Your task to perform on an android device: turn on the 24-hour format for clock Image 0: 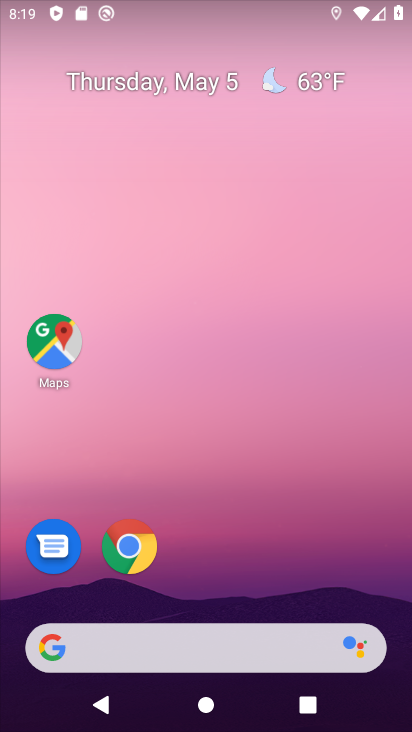
Step 0: drag from (297, 596) to (144, 53)
Your task to perform on an android device: turn on the 24-hour format for clock Image 1: 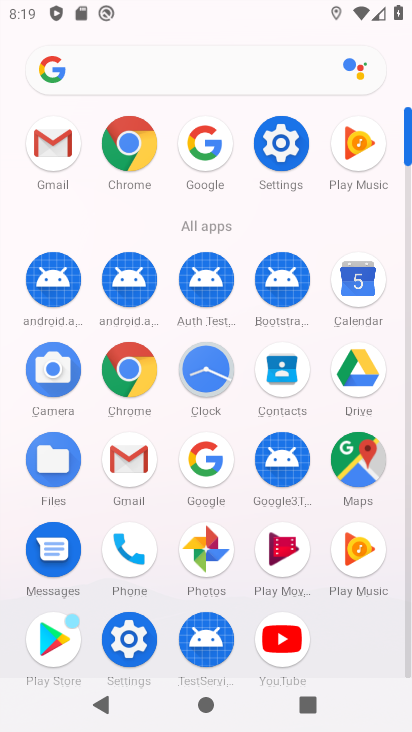
Step 1: click (198, 370)
Your task to perform on an android device: turn on the 24-hour format for clock Image 2: 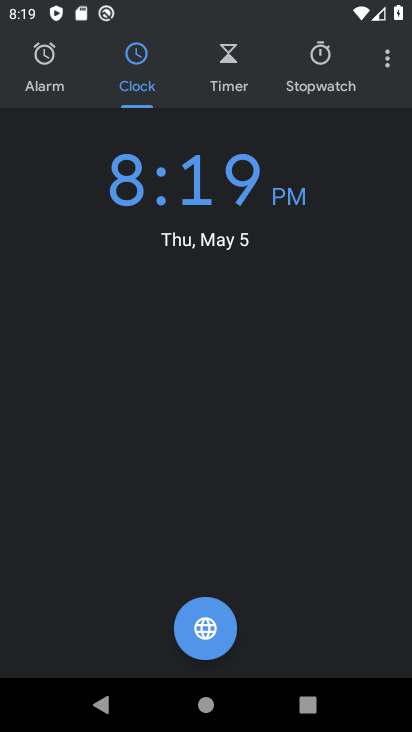
Step 2: click (388, 56)
Your task to perform on an android device: turn on the 24-hour format for clock Image 3: 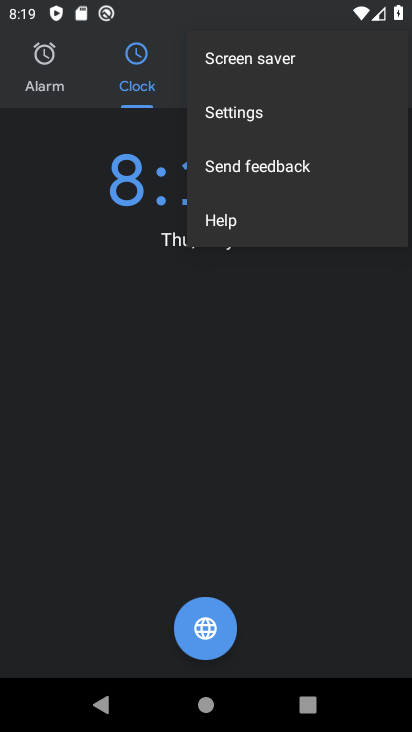
Step 3: click (256, 112)
Your task to perform on an android device: turn on the 24-hour format for clock Image 4: 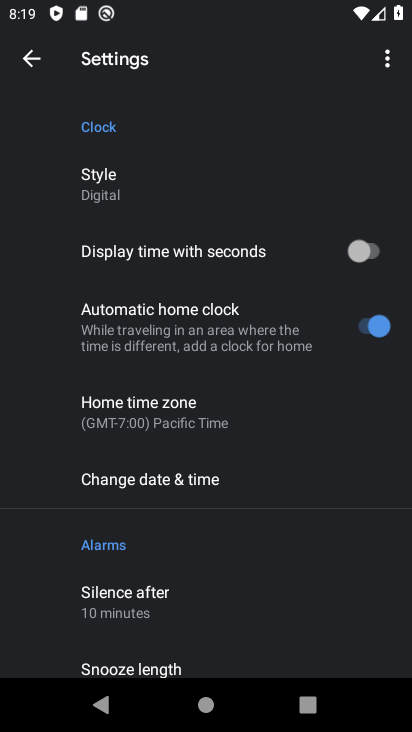
Step 4: drag from (157, 589) to (111, 204)
Your task to perform on an android device: turn on the 24-hour format for clock Image 5: 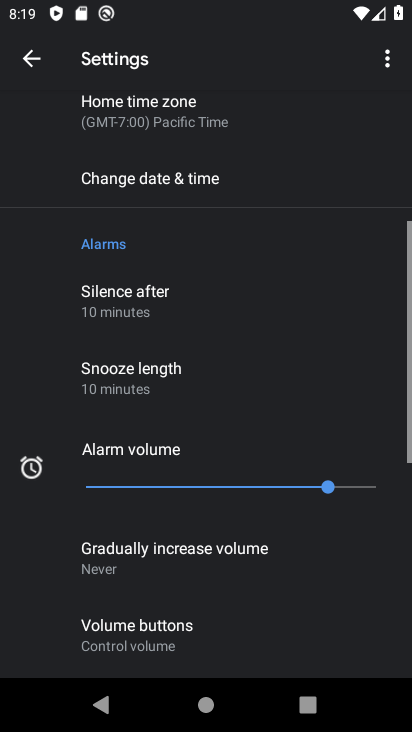
Step 5: drag from (171, 462) to (164, 161)
Your task to perform on an android device: turn on the 24-hour format for clock Image 6: 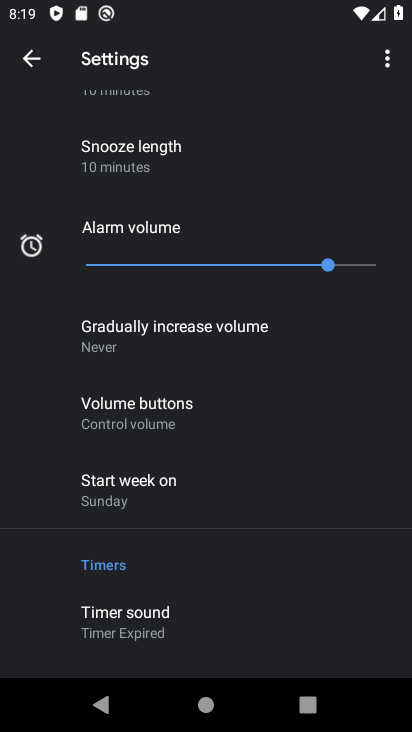
Step 6: drag from (196, 542) to (226, 83)
Your task to perform on an android device: turn on the 24-hour format for clock Image 7: 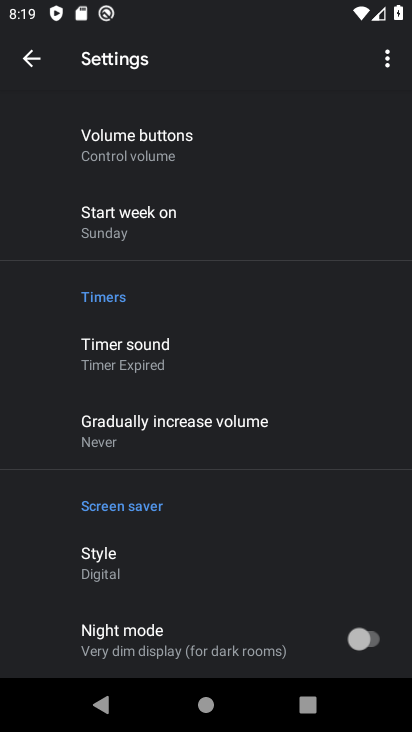
Step 7: click (127, 154)
Your task to perform on an android device: turn on the 24-hour format for clock Image 8: 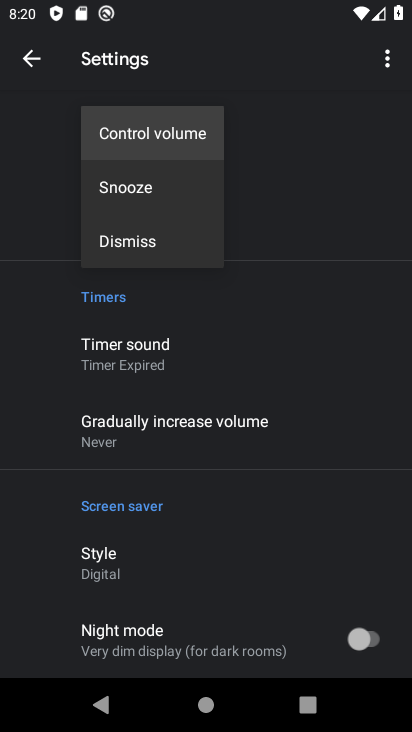
Step 8: click (260, 344)
Your task to perform on an android device: turn on the 24-hour format for clock Image 9: 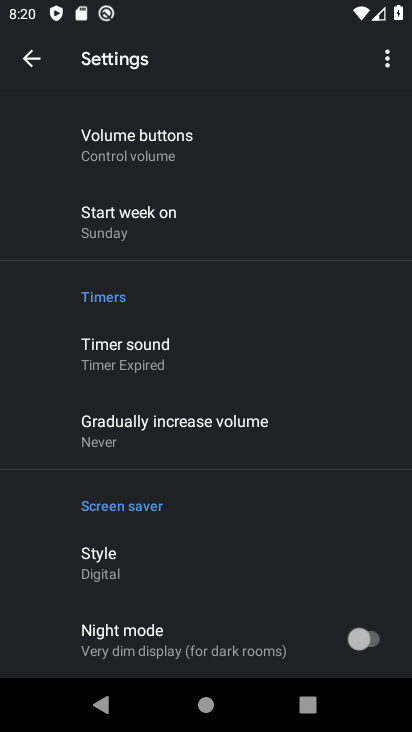
Step 9: drag from (166, 507) to (179, 160)
Your task to perform on an android device: turn on the 24-hour format for clock Image 10: 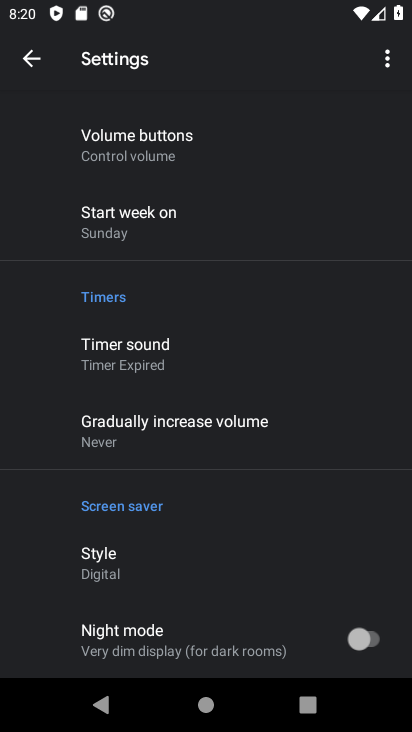
Step 10: drag from (186, 379) to (212, 580)
Your task to perform on an android device: turn on the 24-hour format for clock Image 11: 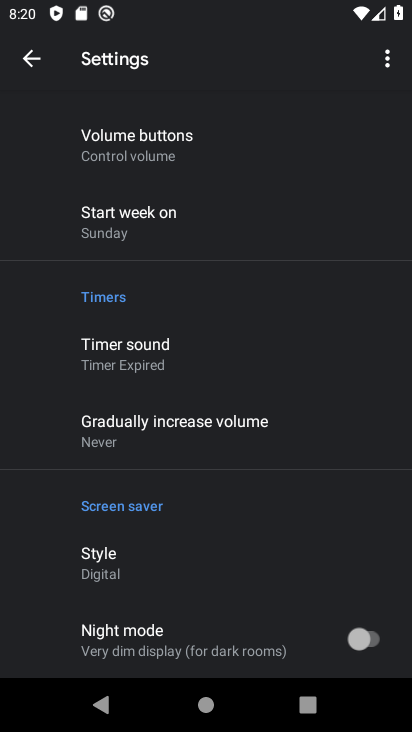
Step 11: drag from (182, 340) to (207, 572)
Your task to perform on an android device: turn on the 24-hour format for clock Image 12: 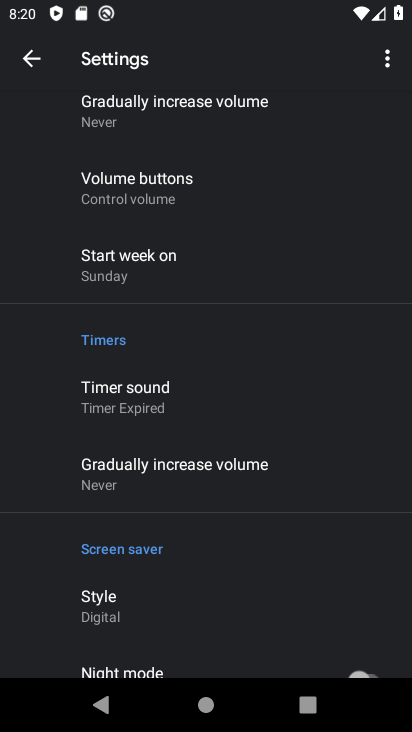
Step 12: drag from (153, 216) to (205, 613)
Your task to perform on an android device: turn on the 24-hour format for clock Image 13: 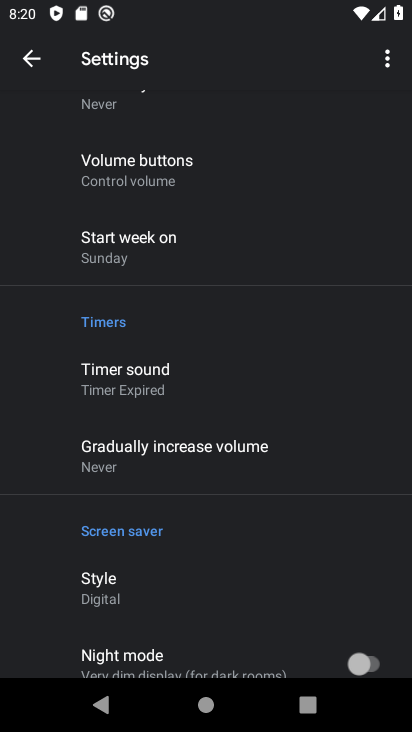
Step 13: click (30, 60)
Your task to perform on an android device: turn on the 24-hour format for clock Image 14: 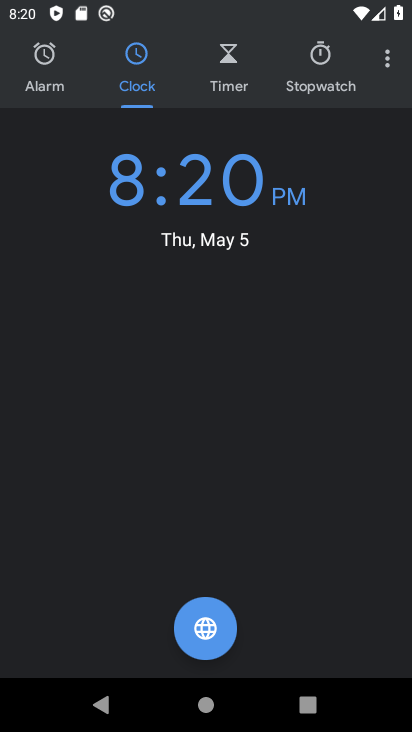
Step 14: click (384, 47)
Your task to perform on an android device: turn on the 24-hour format for clock Image 15: 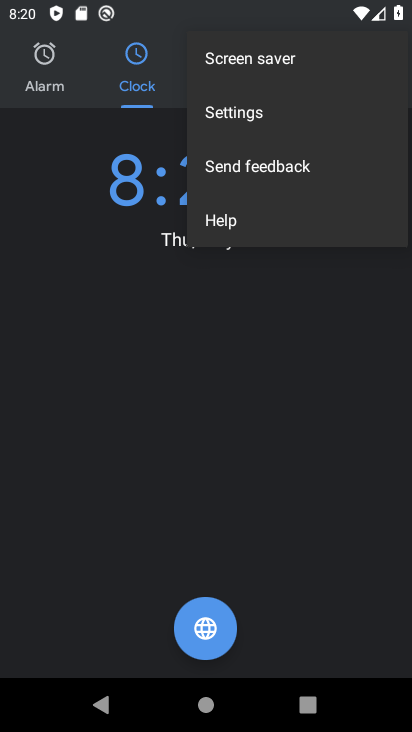
Step 15: click (249, 116)
Your task to perform on an android device: turn on the 24-hour format for clock Image 16: 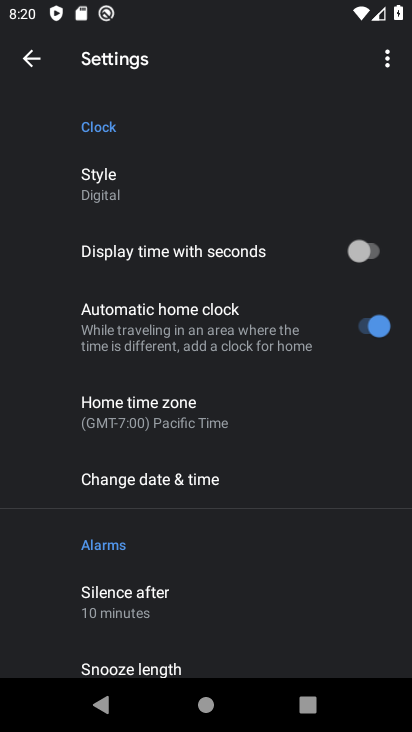
Step 16: click (123, 484)
Your task to perform on an android device: turn on the 24-hour format for clock Image 17: 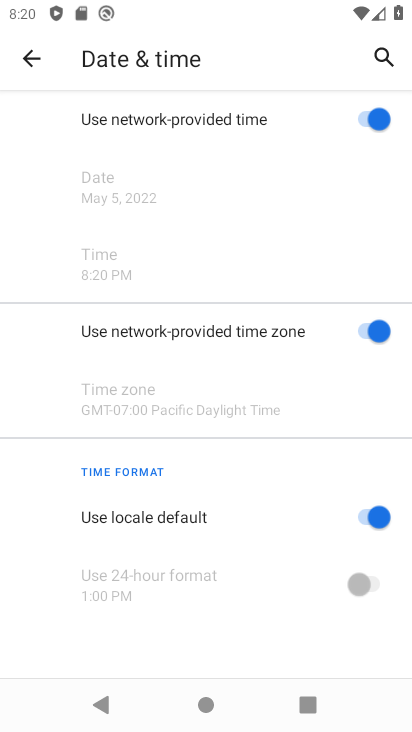
Step 17: click (376, 509)
Your task to perform on an android device: turn on the 24-hour format for clock Image 18: 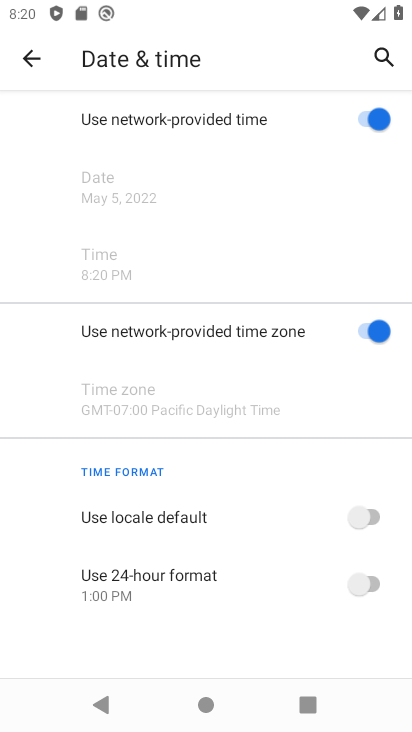
Step 18: click (364, 584)
Your task to perform on an android device: turn on the 24-hour format for clock Image 19: 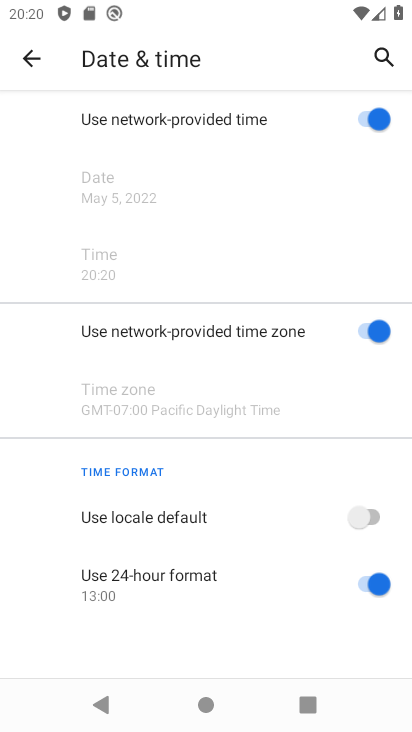
Step 19: task complete